Your task to perform on an android device: snooze an email in the gmail app Image 0: 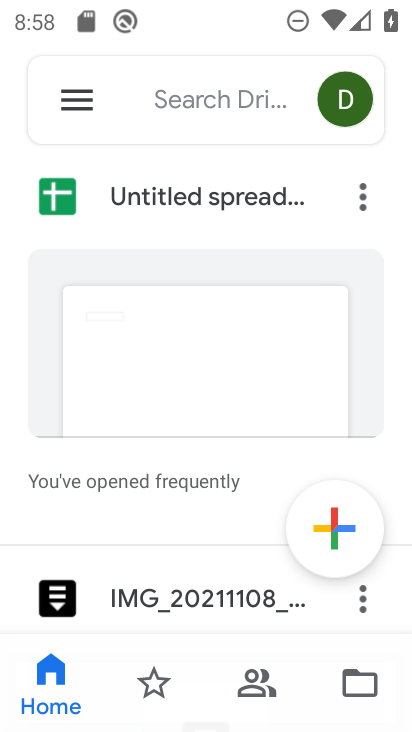
Step 0: press back button
Your task to perform on an android device: snooze an email in the gmail app Image 1: 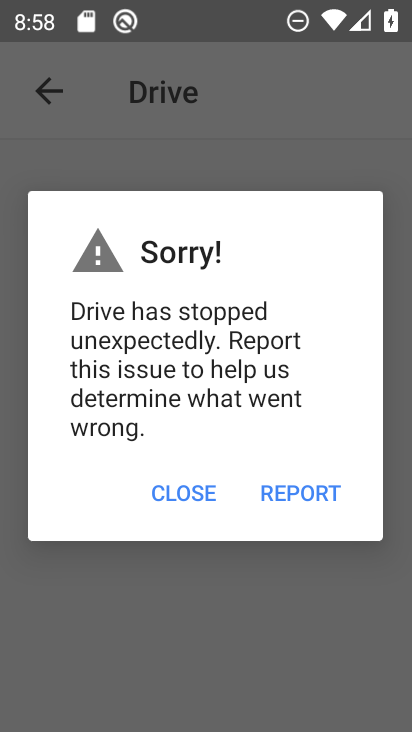
Step 1: press back button
Your task to perform on an android device: snooze an email in the gmail app Image 2: 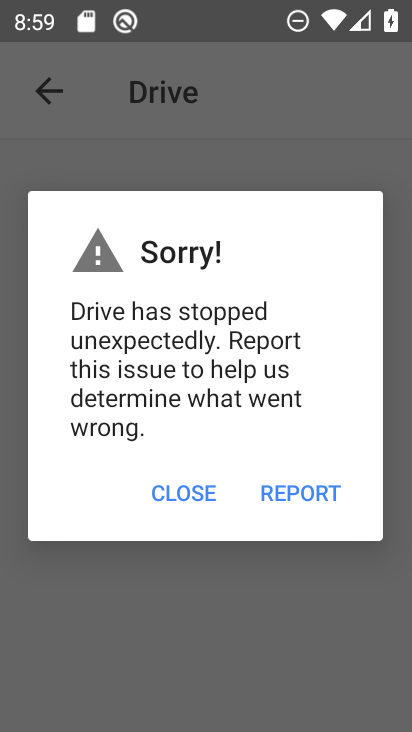
Step 2: press home button
Your task to perform on an android device: snooze an email in the gmail app Image 3: 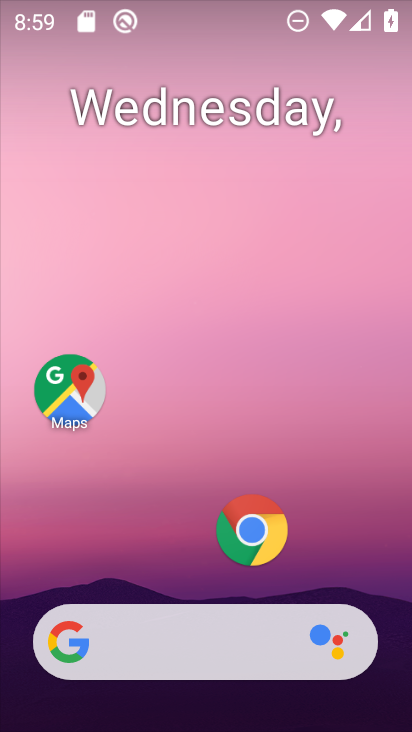
Step 3: drag from (134, 545) to (279, 90)
Your task to perform on an android device: snooze an email in the gmail app Image 4: 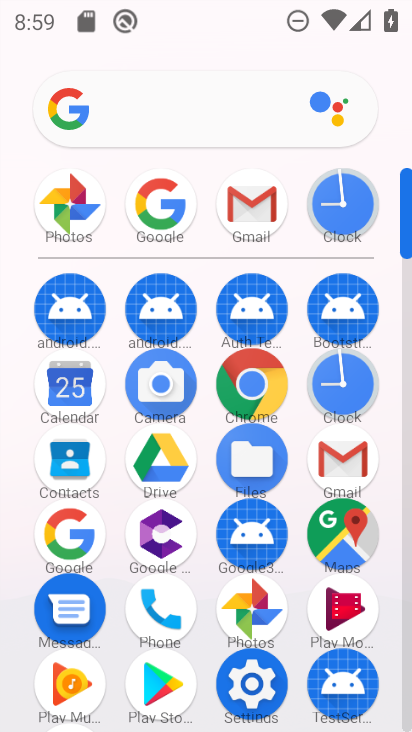
Step 4: click (260, 197)
Your task to perform on an android device: snooze an email in the gmail app Image 5: 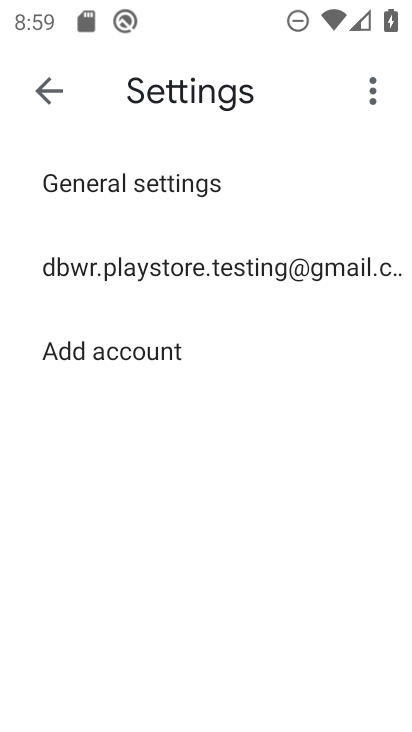
Step 5: click (151, 254)
Your task to perform on an android device: snooze an email in the gmail app Image 6: 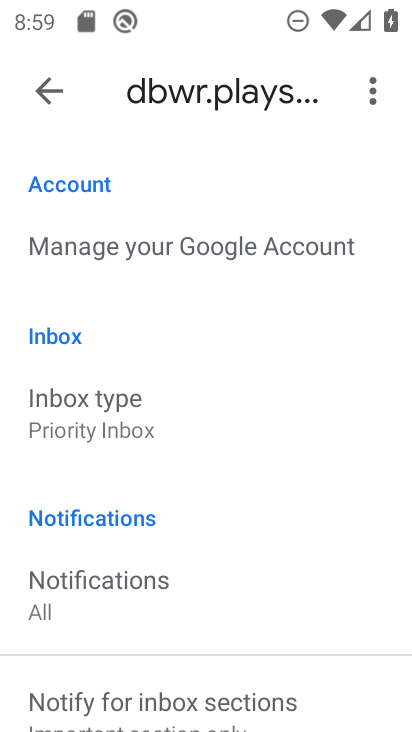
Step 6: click (24, 100)
Your task to perform on an android device: snooze an email in the gmail app Image 7: 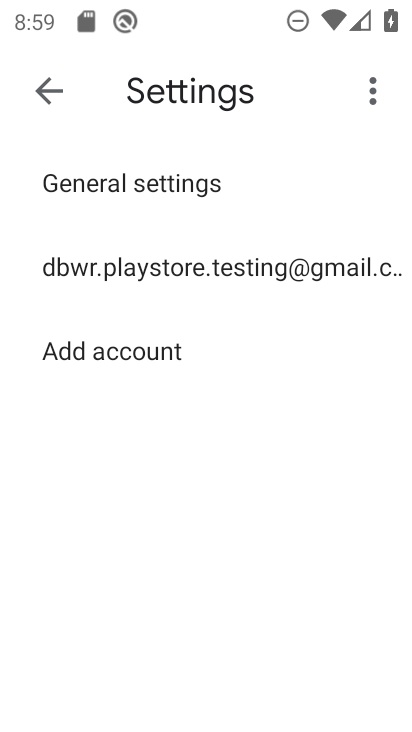
Step 7: click (48, 87)
Your task to perform on an android device: snooze an email in the gmail app Image 8: 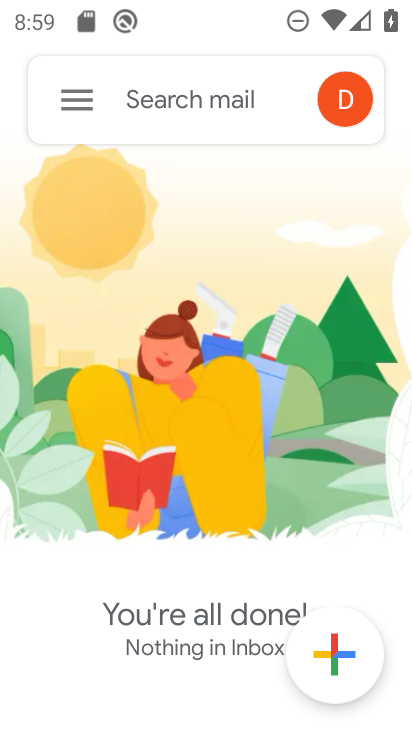
Step 8: click (61, 87)
Your task to perform on an android device: snooze an email in the gmail app Image 9: 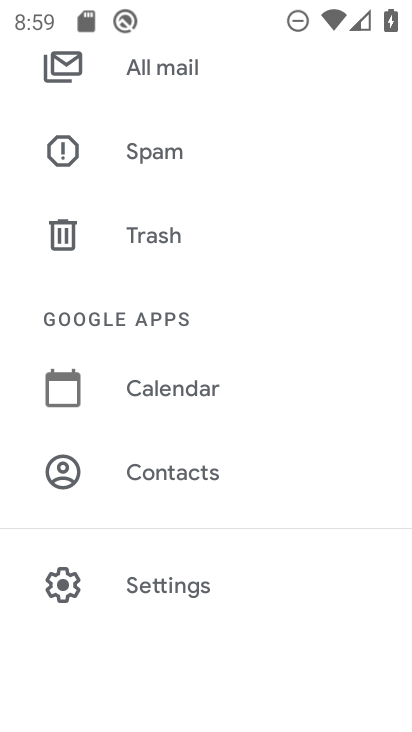
Step 9: click (177, 68)
Your task to perform on an android device: snooze an email in the gmail app Image 10: 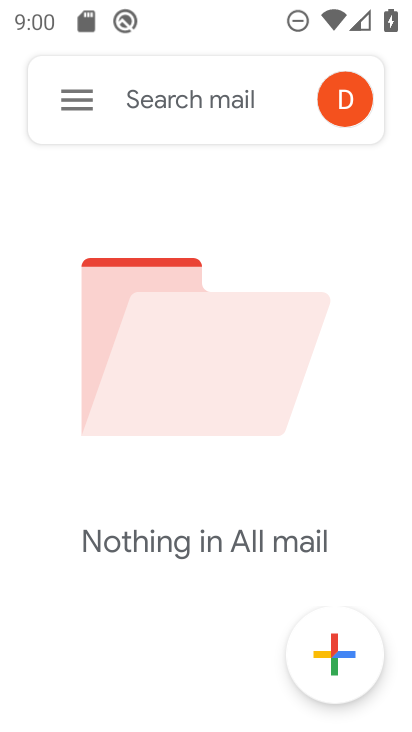
Step 10: task complete